Your task to perform on an android device: show emergency info Image 0: 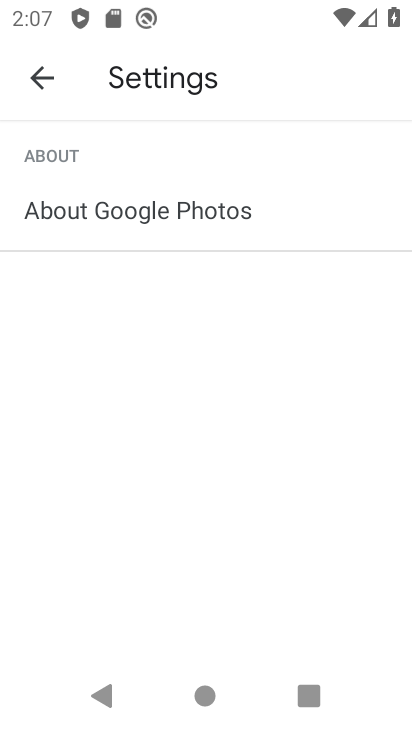
Step 0: press home button
Your task to perform on an android device: show emergency info Image 1: 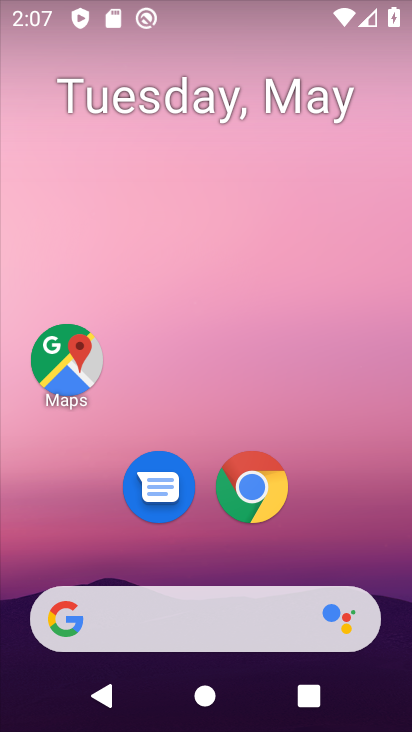
Step 1: drag from (92, 546) to (229, 137)
Your task to perform on an android device: show emergency info Image 2: 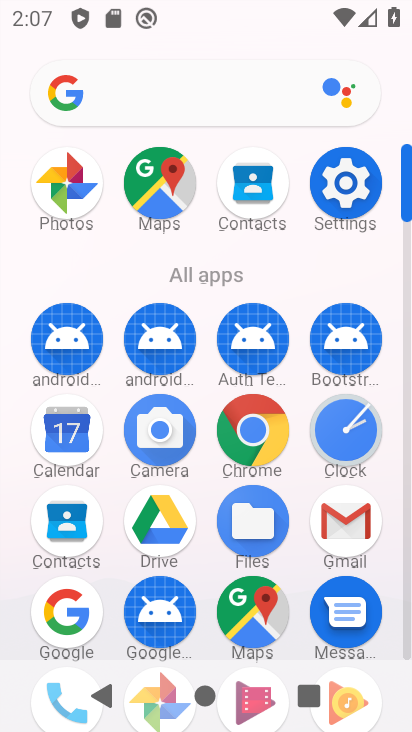
Step 2: drag from (184, 526) to (246, 301)
Your task to perform on an android device: show emergency info Image 3: 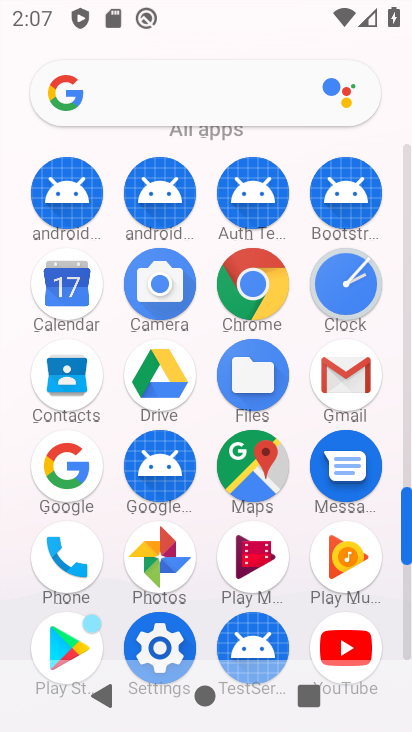
Step 3: click (161, 640)
Your task to perform on an android device: show emergency info Image 4: 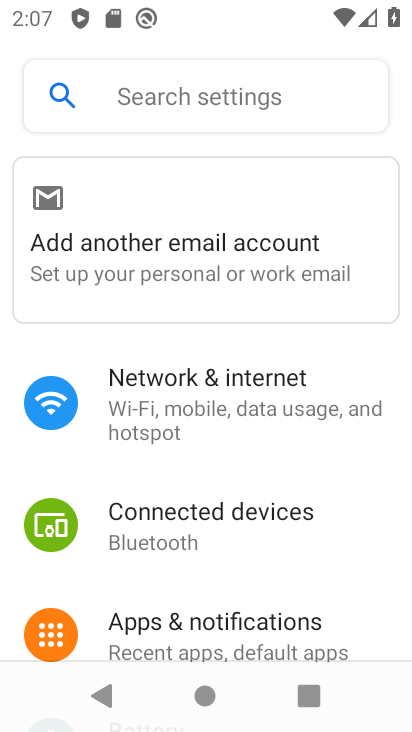
Step 4: drag from (196, 535) to (323, 197)
Your task to perform on an android device: show emergency info Image 5: 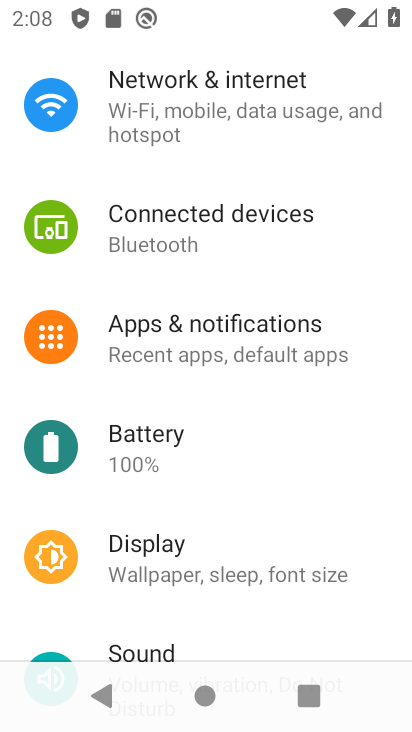
Step 5: drag from (192, 551) to (301, 223)
Your task to perform on an android device: show emergency info Image 6: 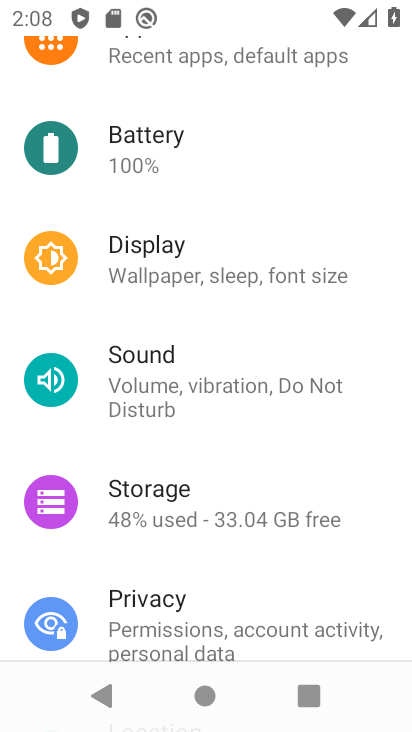
Step 6: drag from (185, 603) to (271, 240)
Your task to perform on an android device: show emergency info Image 7: 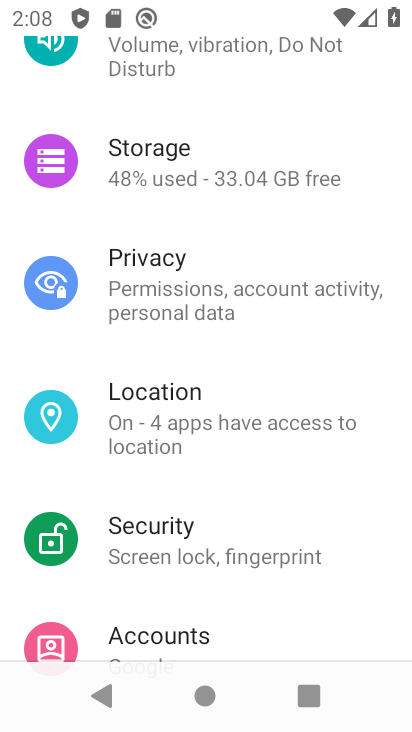
Step 7: drag from (151, 592) to (282, 227)
Your task to perform on an android device: show emergency info Image 8: 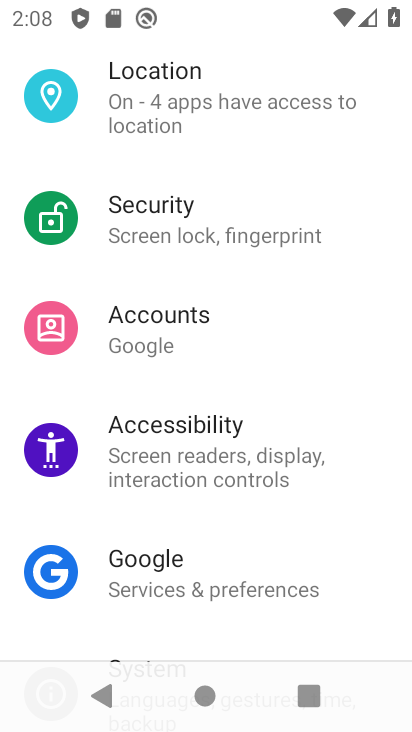
Step 8: drag from (210, 614) to (291, 222)
Your task to perform on an android device: show emergency info Image 9: 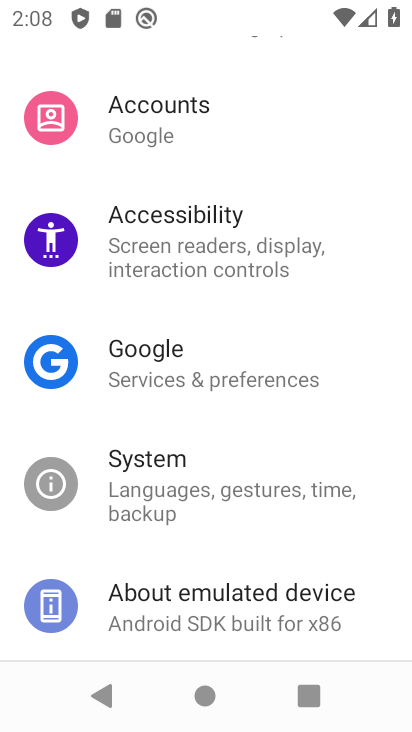
Step 9: click (224, 623)
Your task to perform on an android device: show emergency info Image 10: 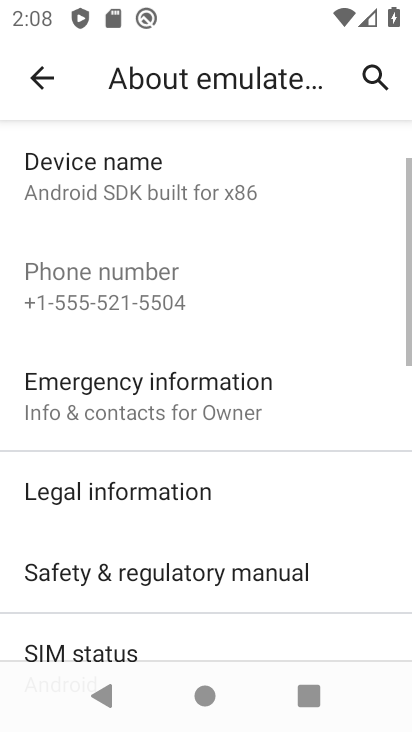
Step 10: click (168, 424)
Your task to perform on an android device: show emergency info Image 11: 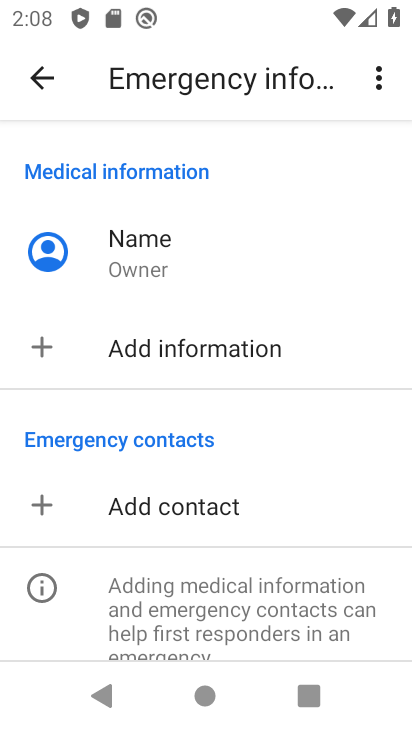
Step 11: task complete